Your task to perform on an android device: add a contact in the contacts app Image 0: 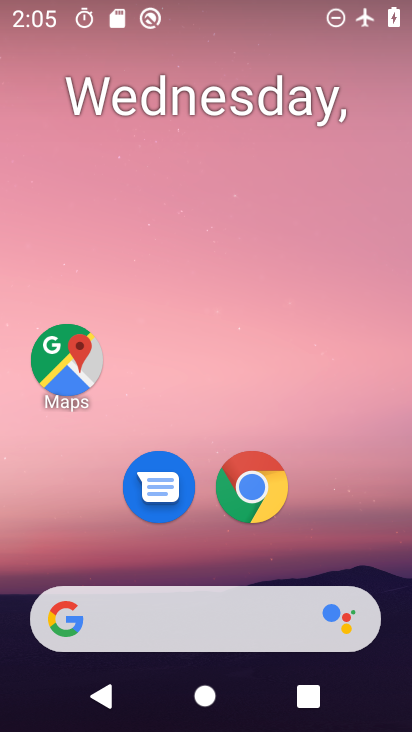
Step 0: drag from (186, 574) to (274, 30)
Your task to perform on an android device: add a contact in the contacts app Image 1: 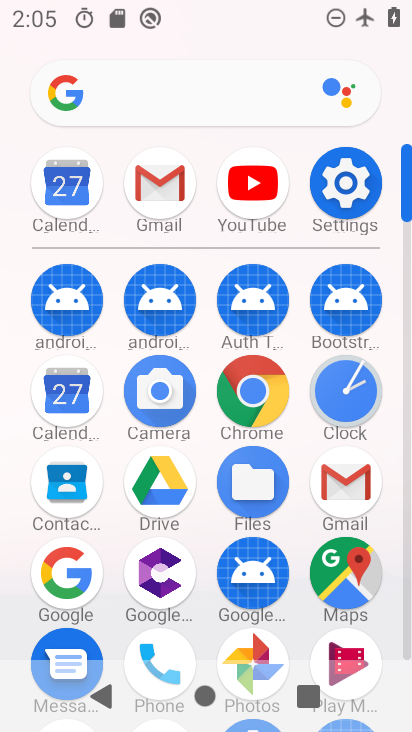
Step 1: click (70, 487)
Your task to perform on an android device: add a contact in the contacts app Image 2: 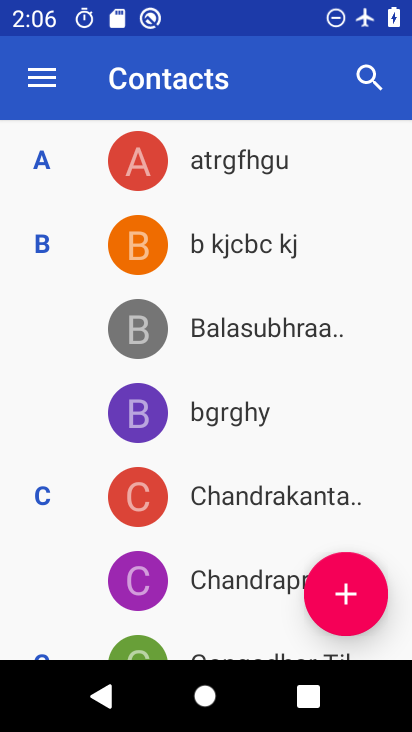
Step 2: click (342, 594)
Your task to perform on an android device: add a contact in the contacts app Image 3: 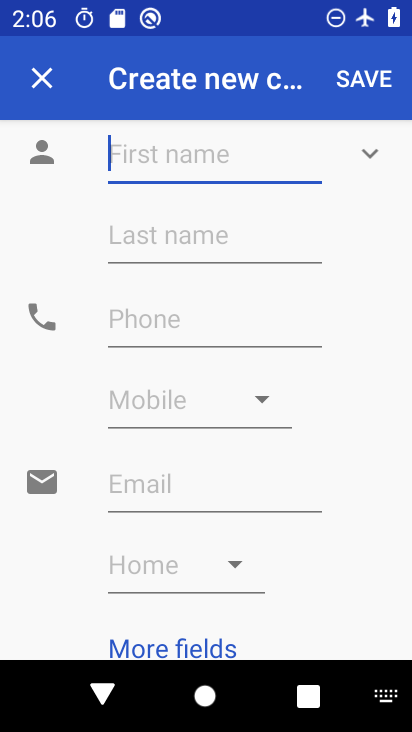
Step 3: click (146, 154)
Your task to perform on an android device: add a contact in the contacts app Image 4: 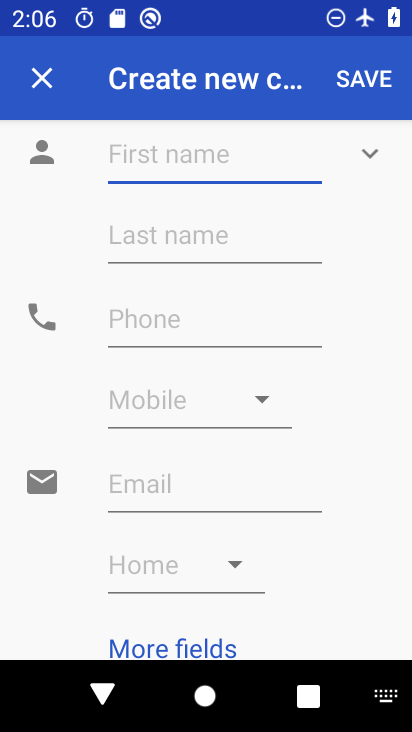
Step 4: type "hghvhv"
Your task to perform on an android device: add a contact in the contacts app Image 5: 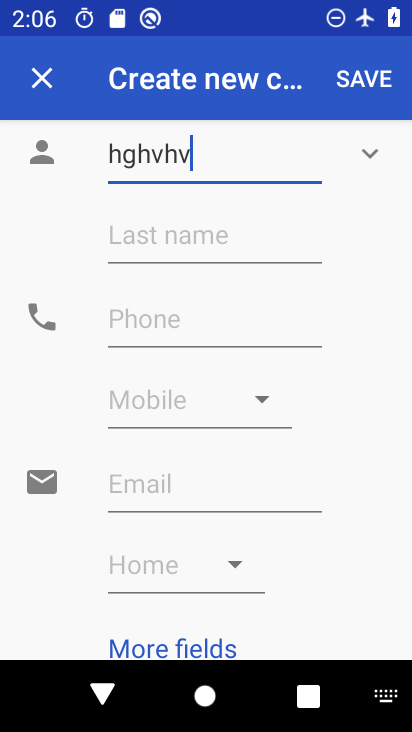
Step 5: click (147, 331)
Your task to perform on an android device: add a contact in the contacts app Image 6: 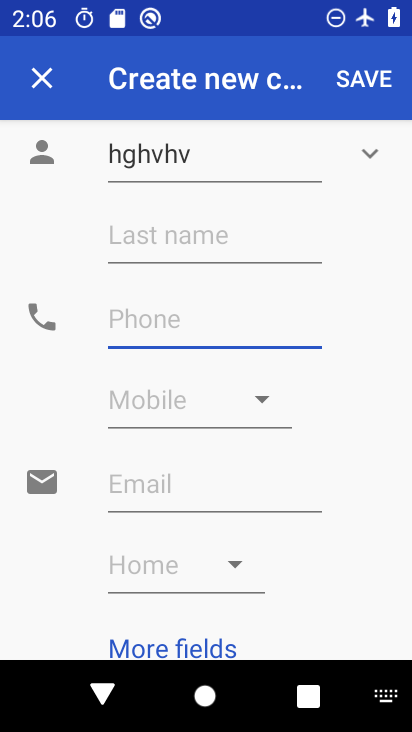
Step 6: type "87878"
Your task to perform on an android device: add a contact in the contacts app Image 7: 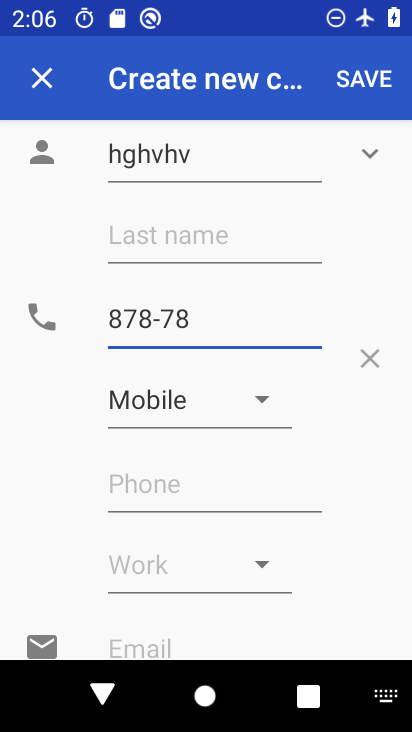
Step 7: click (366, 66)
Your task to perform on an android device: add a contact in the contacts app Image 8: 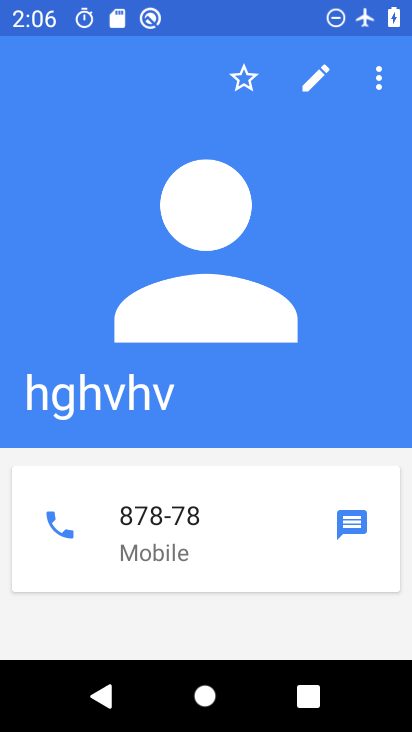
Step 8: task complete